Your task to perform on an android device: open app "Gboard" (install if not already installed) Image 0: 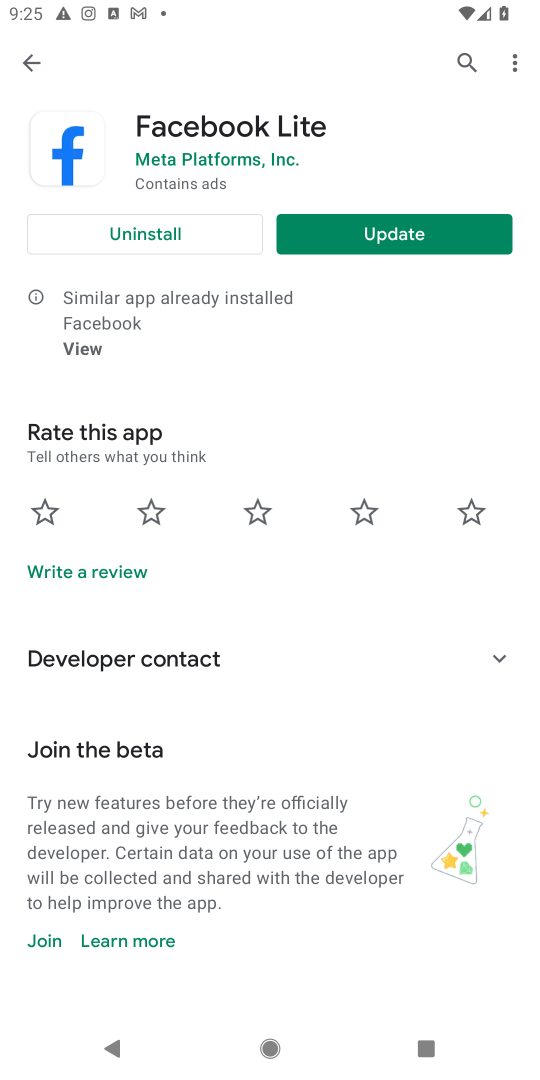
Step 0: press home button
Your task to perform on an android device: open app "Gboard" (install if not already installed) Image 1: 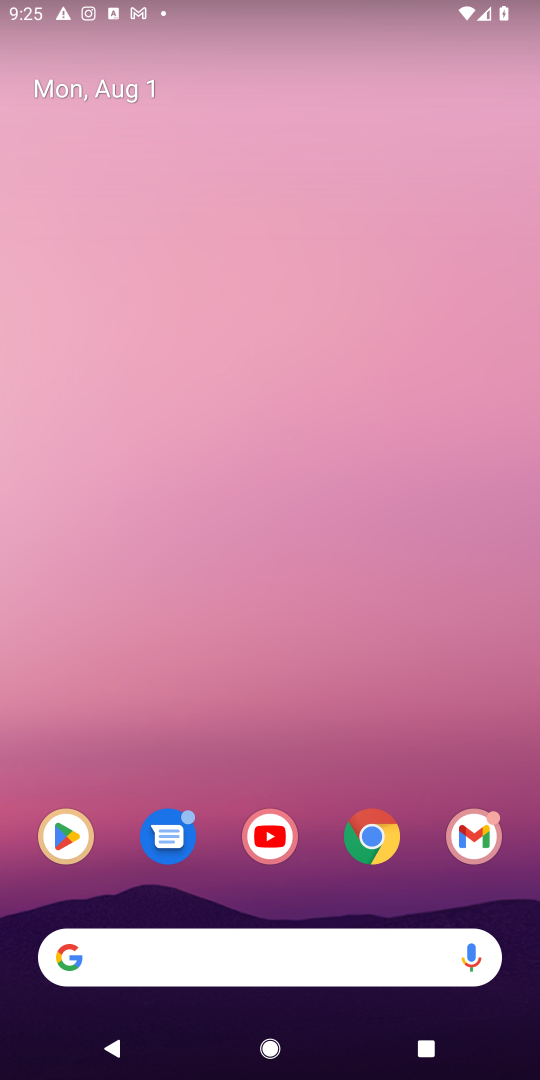
Step 1: click (57, 829)
Your task to perform on an android device: open app "Gboard" (install if not already installed) Image 2: 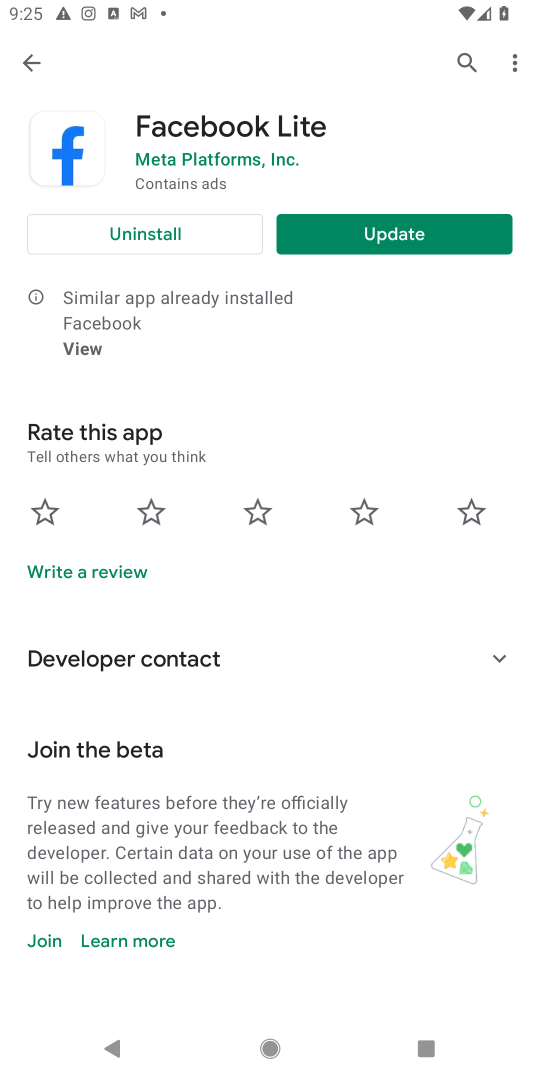
Step 2: click (459, 55)
Your task to perform on an android device: open app "Gboard" (install if not already installed) Image 3: 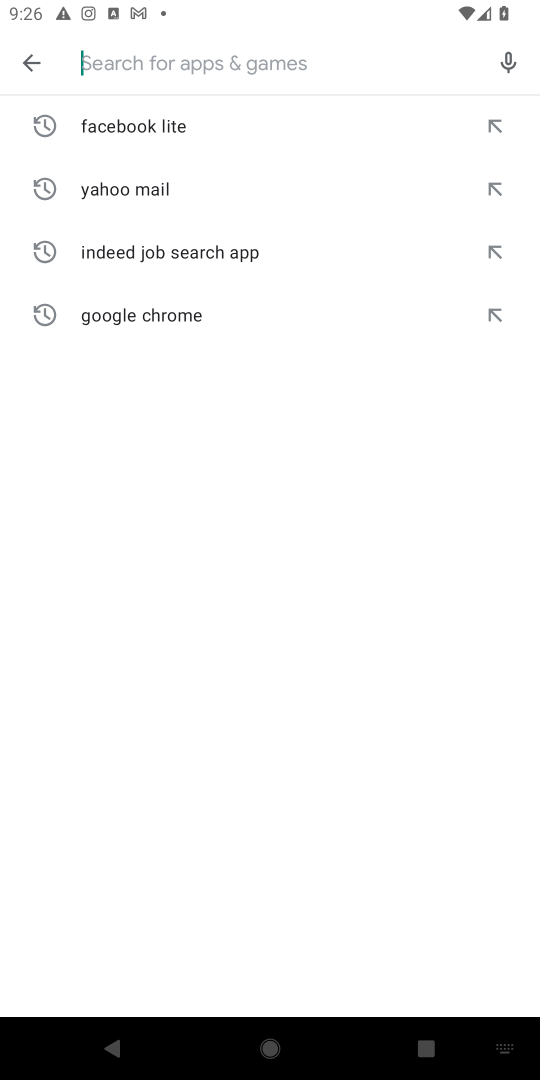
Step 3: type "Gboard"
Your task to perform on an android device: open app "Gboard" (install if not already installed) Image 4: 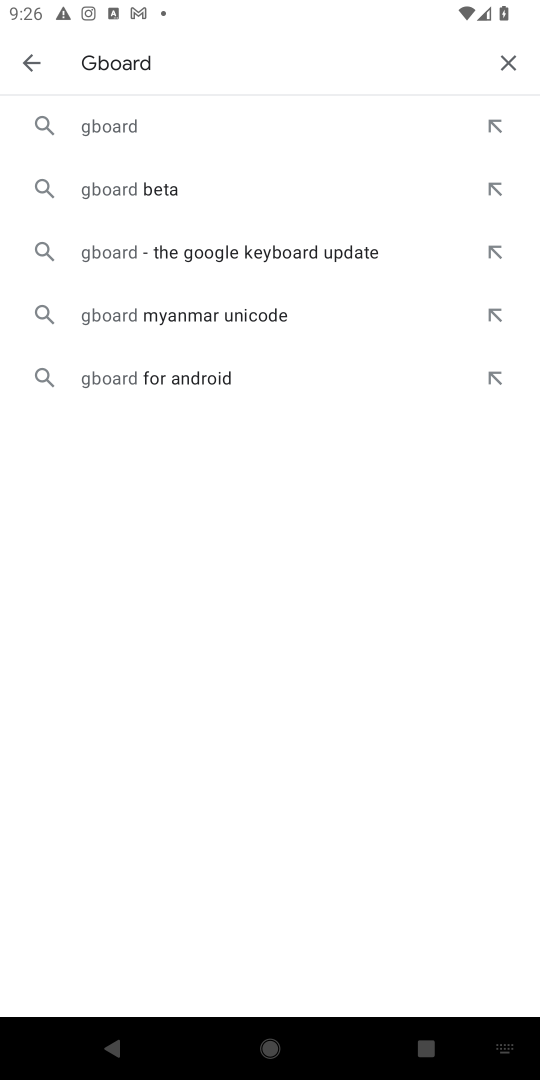
Step 4: click (116, 127)
Your task to perform on an android device: open app "Gboard" (install if not already installed) Image 5: 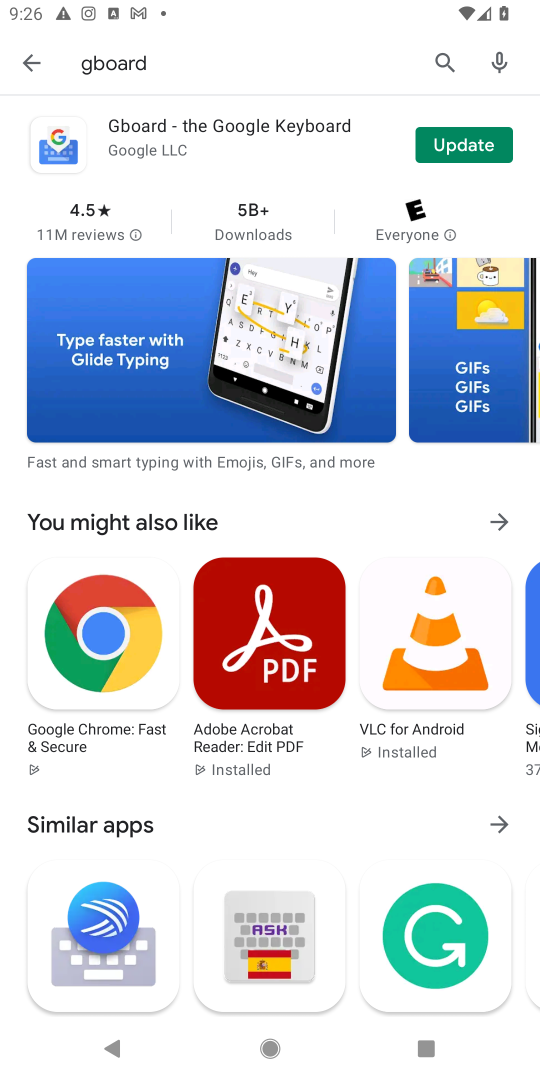
Step 5: click (131, 143)
Your task to perform on an android device: open app "Gboard" (install if not already installed) Image 6: 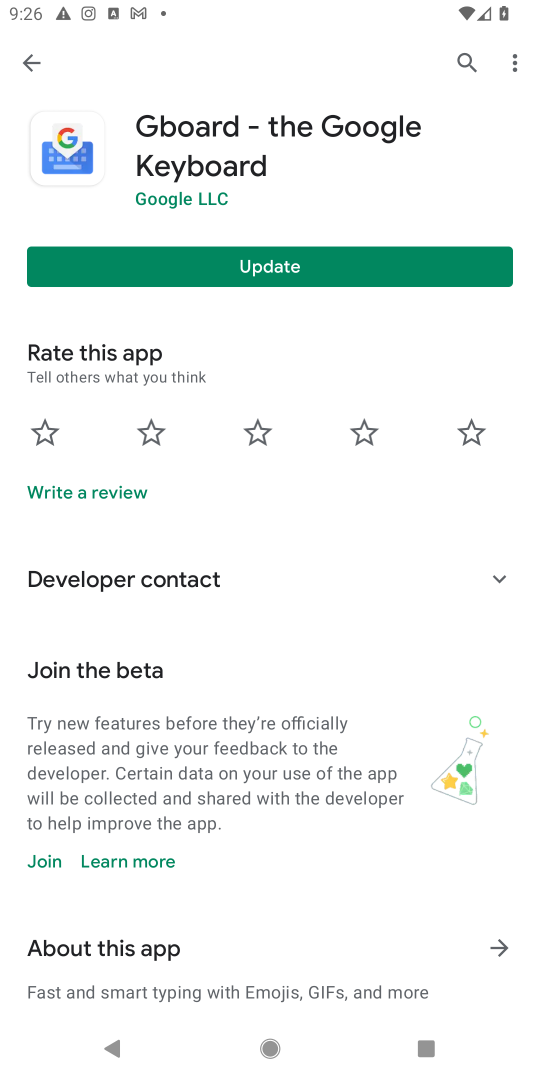
Step 6: task complete